Your task to perform on an android device: What's the weather? Image 0: 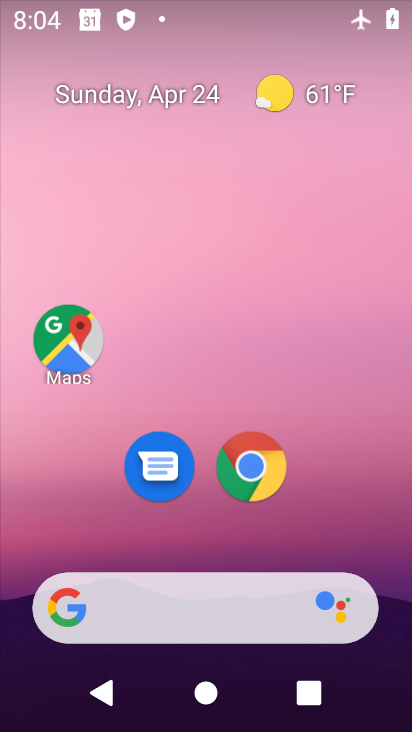
Step 0: click (278, 91)
Your task to perform on an android device: What's the weather? Image 1: 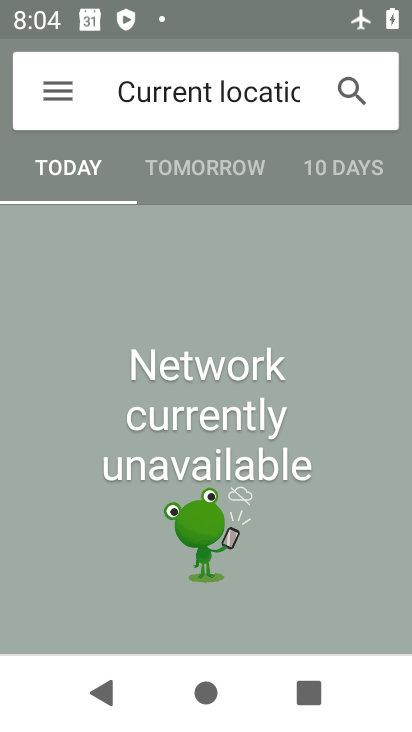
Step 1: task complete